Your task to perform on an android device: Is it going to rain today? Image 0: 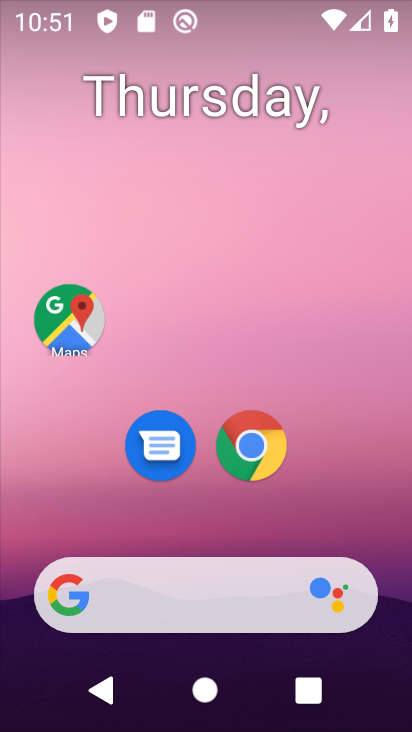
Step 0: drag from (30, 200) to (396, 193)
Your task to perform on an android device: Is it going to rain today? Image 1: 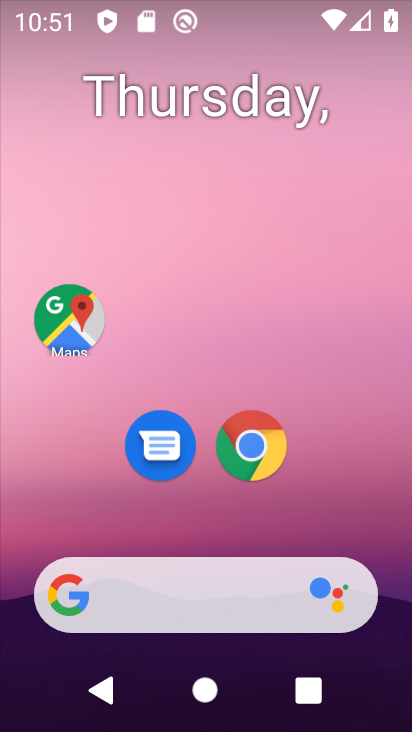
Step 1: drag from (86, 215) to (408, 233)
Your task to perform on an android device: Is it going to rain today? Image 2: 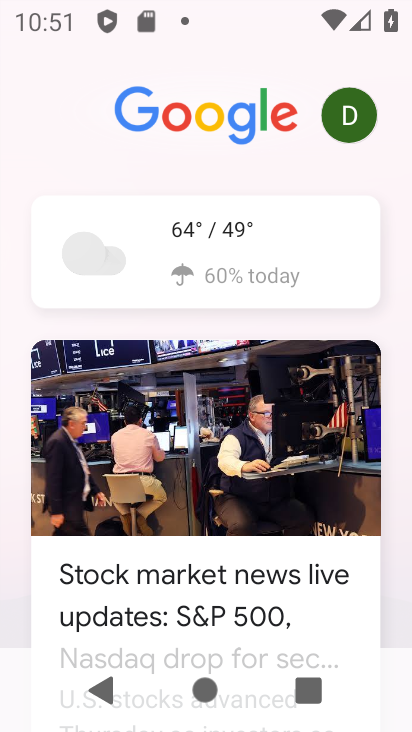
Step 2: click (230, 228)
Your task to perform on an android device: Is it going to rain today? Image 3: 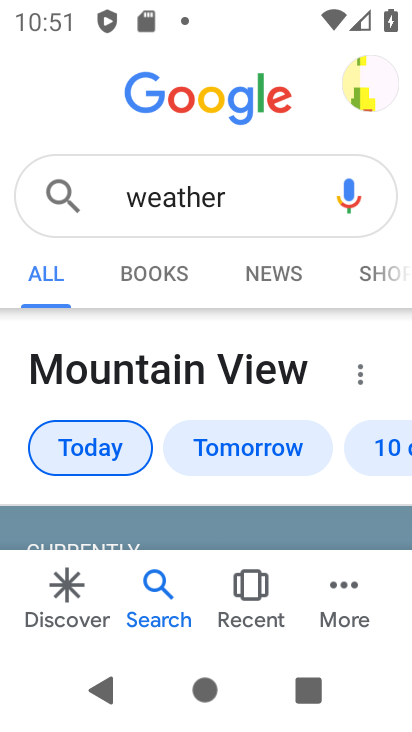
Step 3: drag from (217, 516) to (308, 28)
Your task to perform on an android device: Is it going to rain today? Image 4: 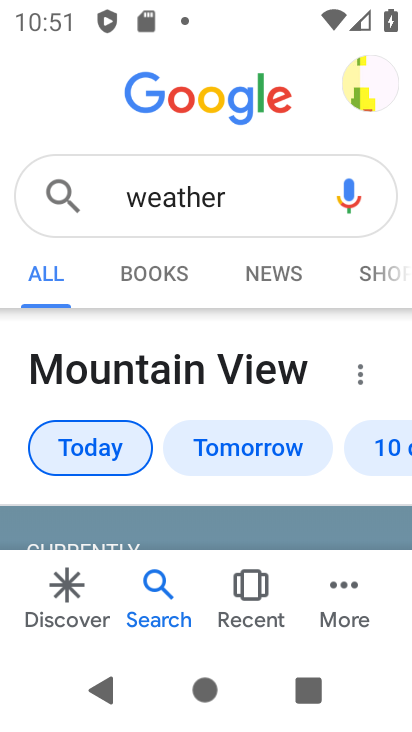
Step 4: drag from (191, 529) to (353, 20)
Your task to perform on an android device: Is it going to rain today? Image 5: 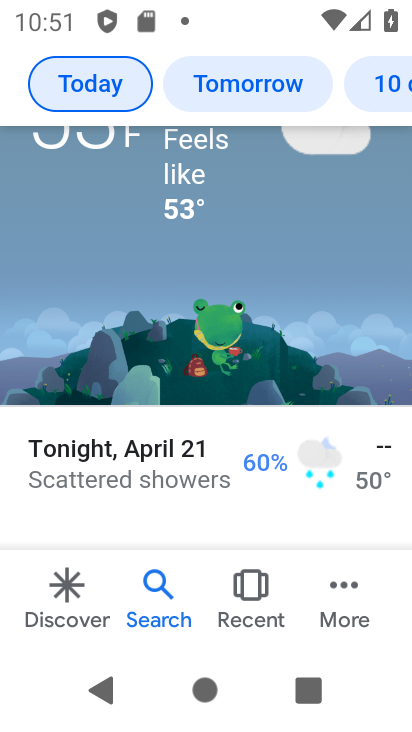
Step 5: drag from (253, 528) to (362, 80)
Your task to perform on an android device: Is it going to rain today? Image 6: 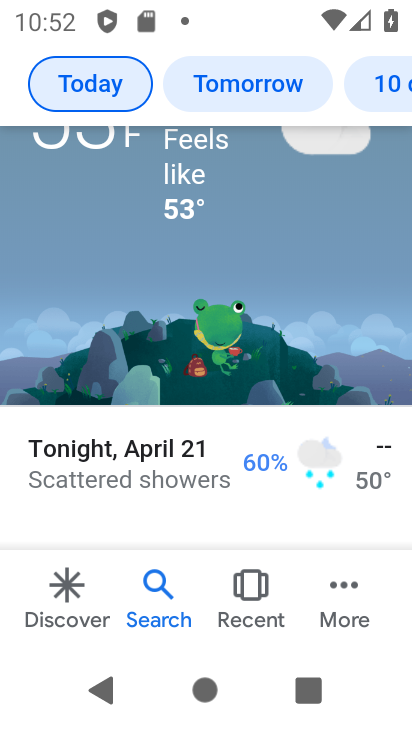
Step 6: drag from (138, 499) to (358, 179)
Your task to perform on an android device: Is it going to rain today? Image 7: 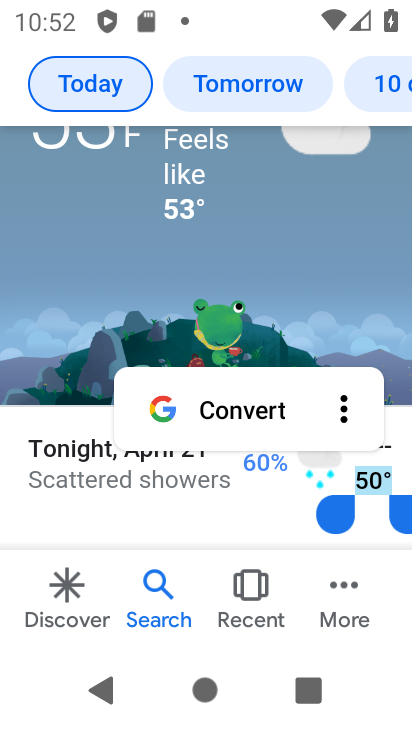
Step 7: click (73, 300)
Your task to perform on an android device: Is it going to rain today? Image 8: 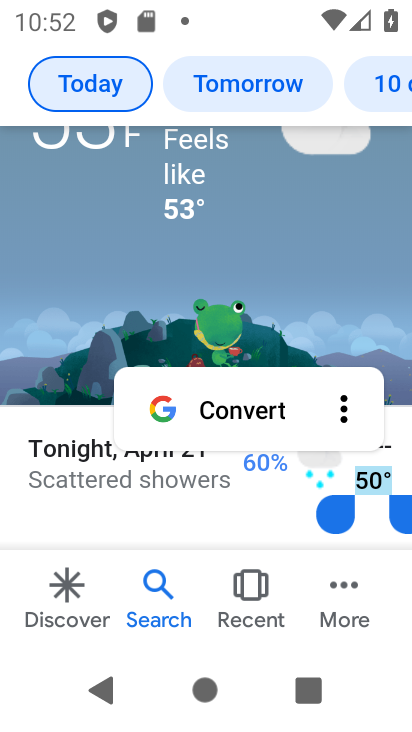
Step 8: task complete